Your task to perform on an android device: see tabs open on other devices in the chrome app Image 0: 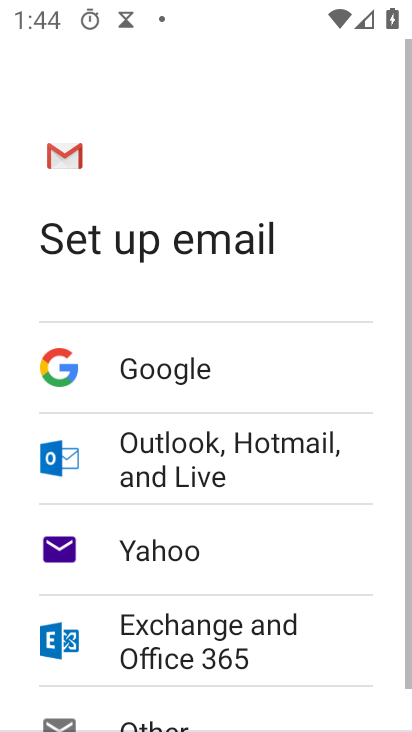
Step 0: press home button
Your task to perform on an android device: see tabs open on other devices in the chrome app Image 1: 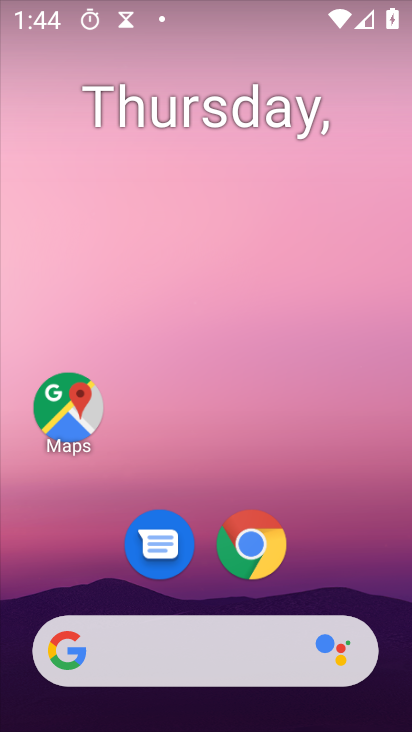
Step 1: click (252, 545)
Your task to perform on an android device: see tabs open on other devices in the chrome app Image 2: 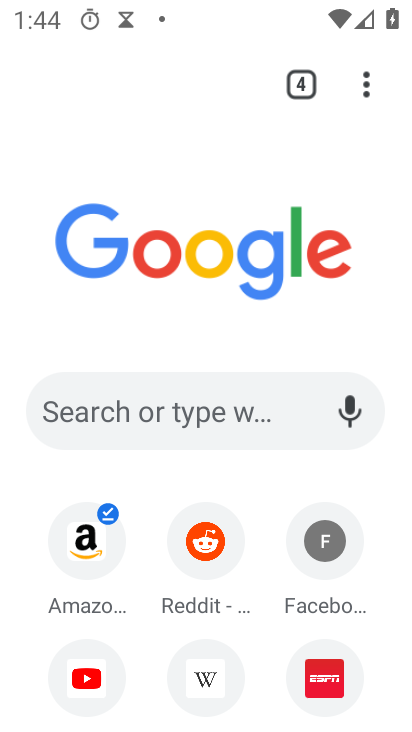
Step 2: click (368, 91)
Your task to perform on an android device: see tabs open on other devices in the chrome app Image 3: 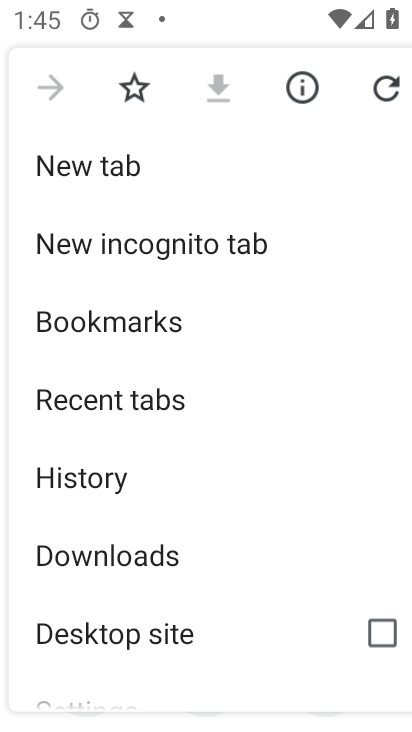
Step 3: click (80, 400)
Your task to perform on an android device: see tabs open on other devices in the chrome app Image 4: 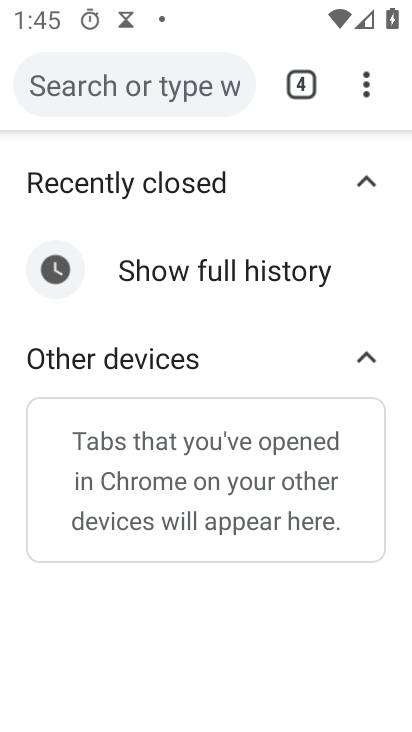
Step 4: task complete